Your task to perform on an android device: open app "Google Chat" (install if not already installed) Image 0: 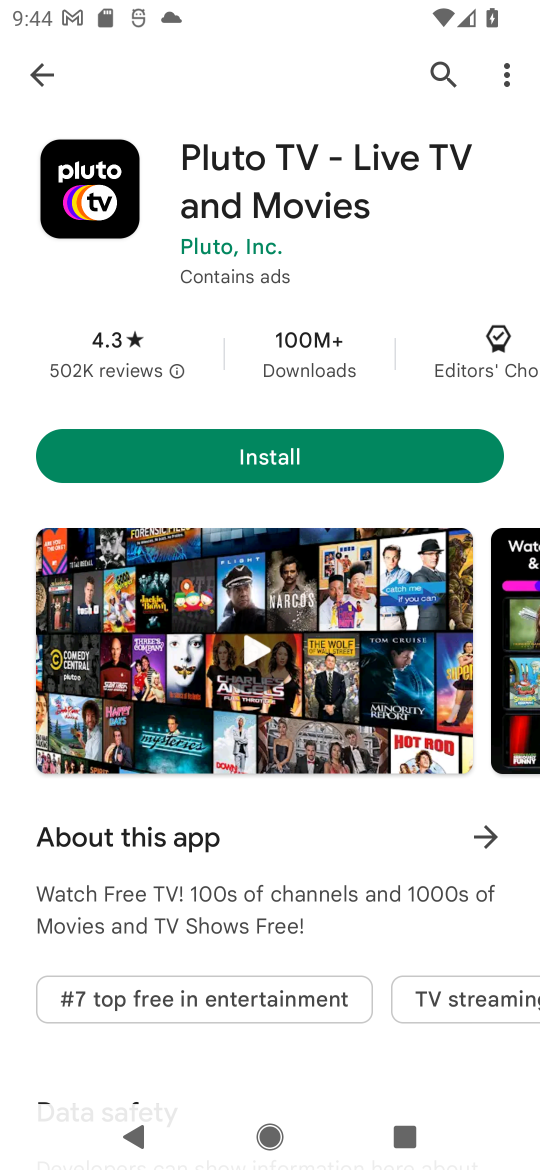
Step 0: press home button
Your task to perform on an android device: open app "Google Chat" (install if not already installed) Image 1: 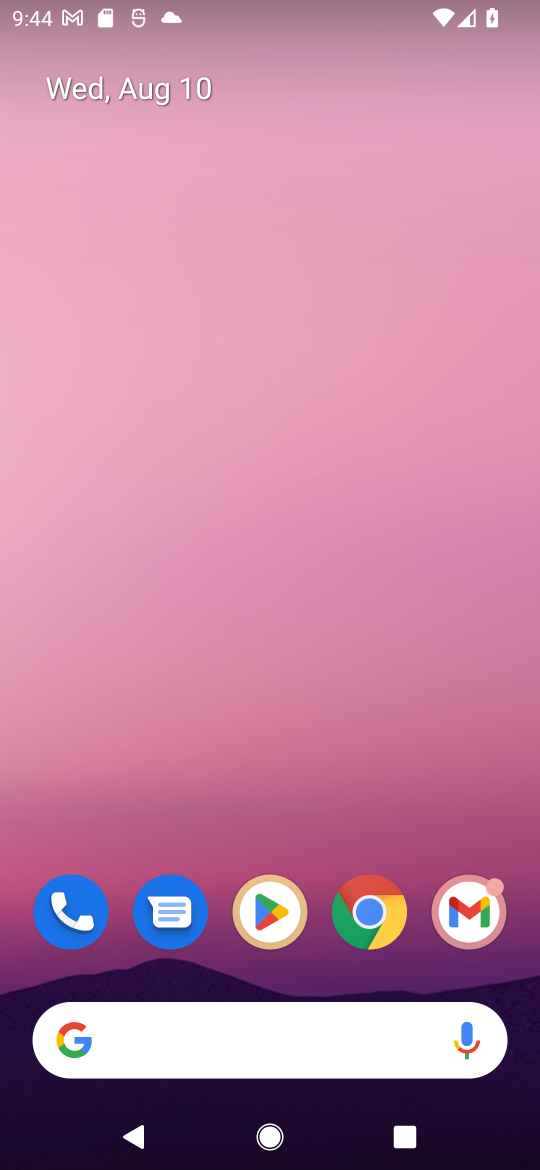
Step 1: drag from (508, 949) to (269, 4)
Your task to perform on an android device: open app "Google Chat" (install if not already installed) Image 2: 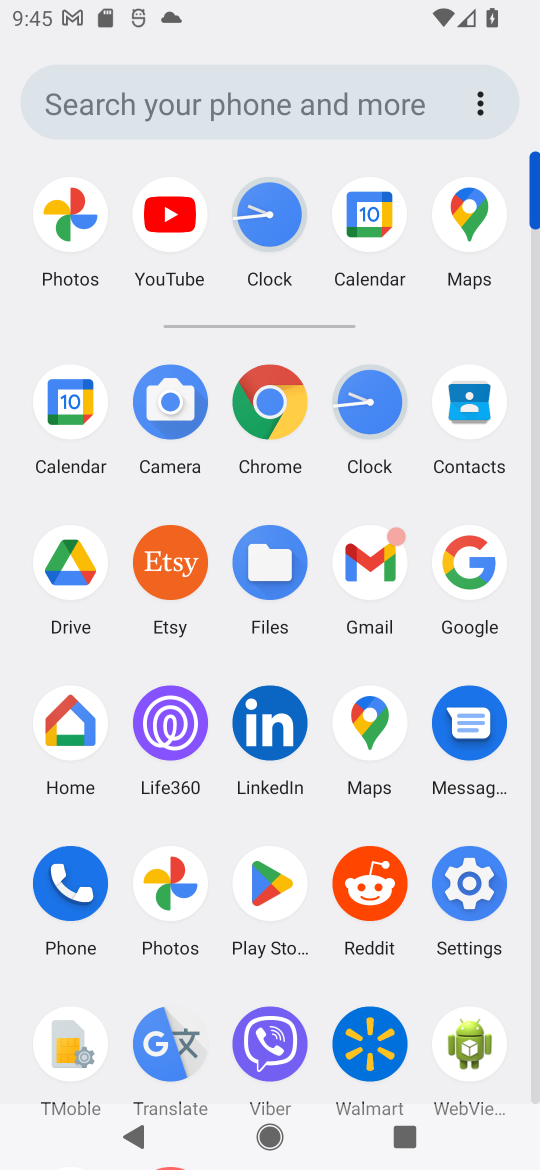
Step 2: click (291, 872)
Your task to perform on an android device: open app "Google Chat" (install if not already installed) Image 3: 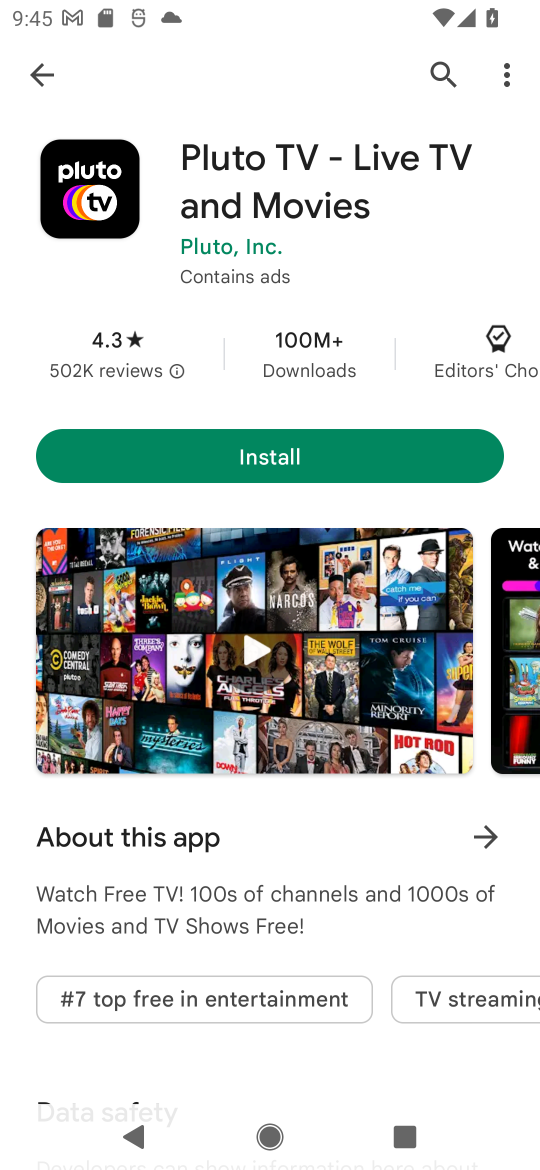
Step 3: press back button
Your task to perform on an android device: open app "Google Chat" (install if not already installed) Image 4: 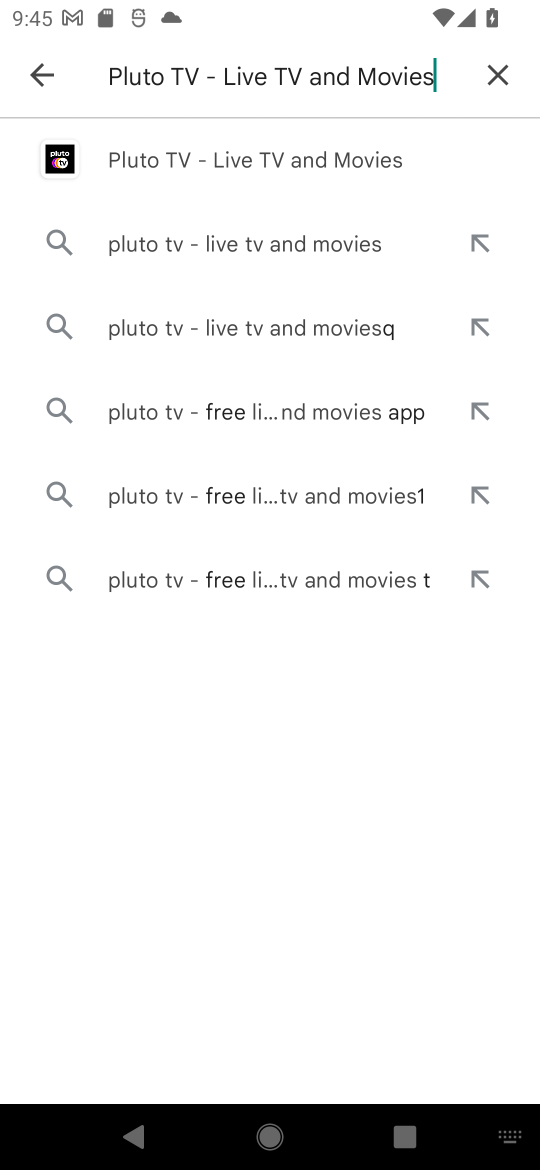
Step 4: press back button
Your task to perform on an android device: open app "Google Chat" (install if not already installed) Image 5: 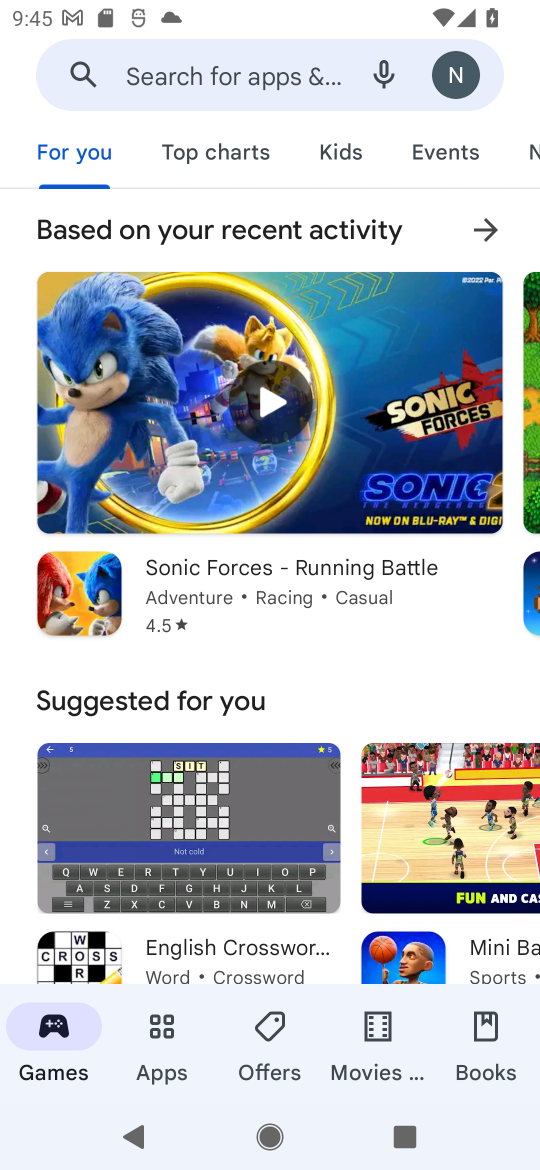
Step 5: click (173, 72)
Your task to perform on an android device: open app "Google Chat" (install if not already installed) Image 6: 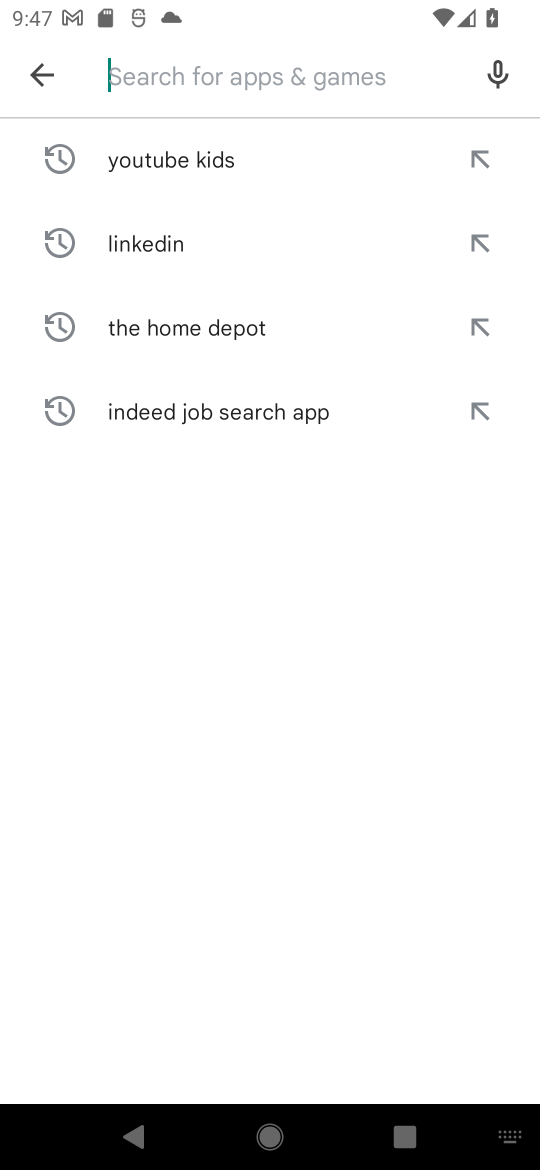
Step 6: type "Google Chat"
Your task to perform on an android device: open app "Google Chat" (install if not already installed) Image 7: 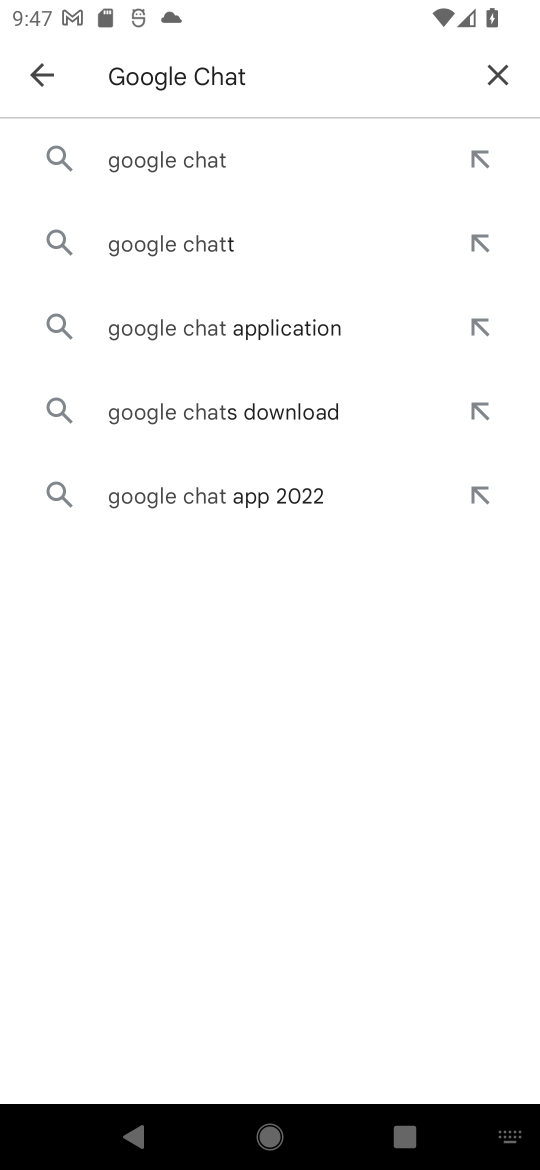
Step 7: click (197, 167)
Your task to perform on an android device: open app "Google Chat" (install if not already installed) Image 8: 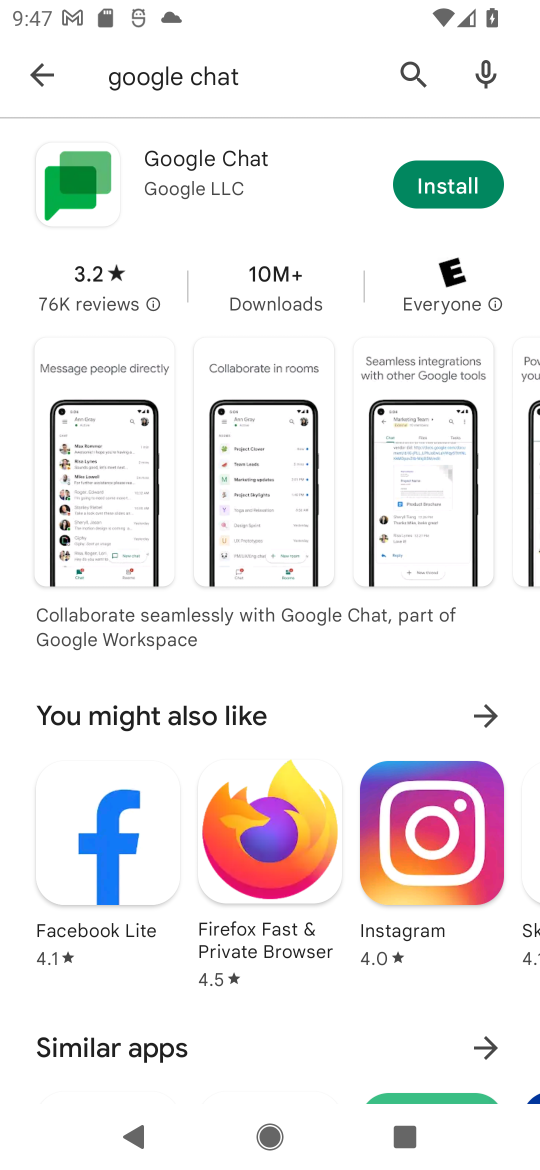
Step 8: task complete